Your task to perform on an android device: delete browsing data in the chrome app Image 0: 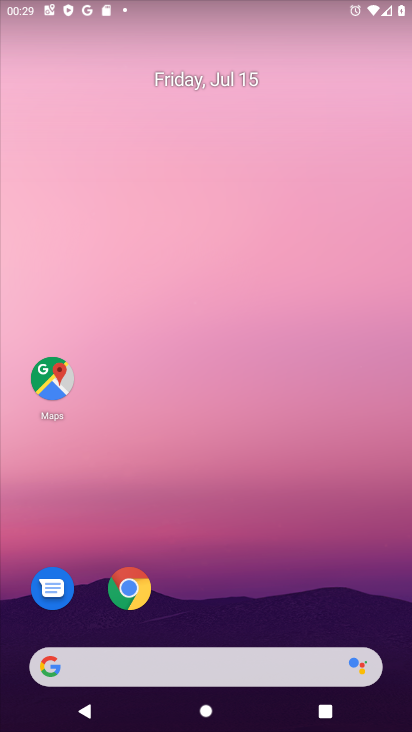
Step 0: press home button
Your task to perform on an android device: delete browsing data in the chrome app Image 1: 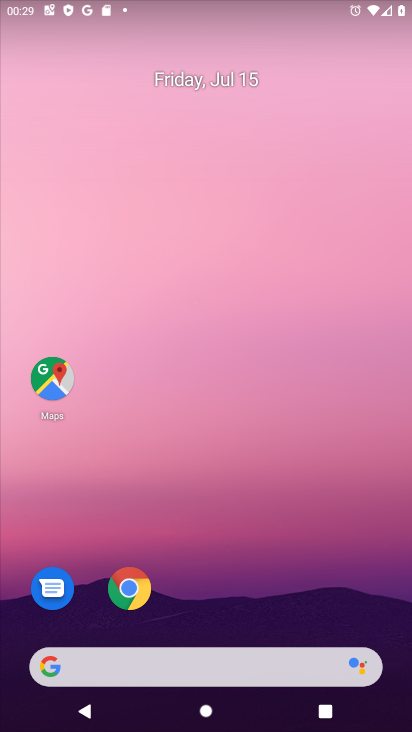
Step 1: click (129, 595)
Your task to perform on an android device: delete browsing data in the chrome app Image 2: 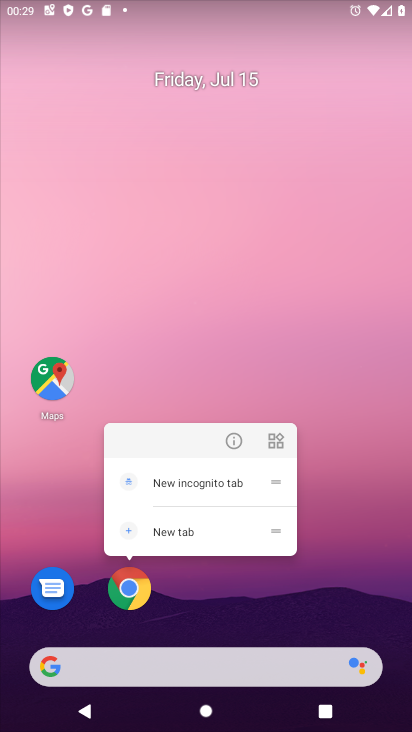
Step 2: click (135, 583)
Your task to perform on an android device: delete browsing data in the chrome app Image 3: 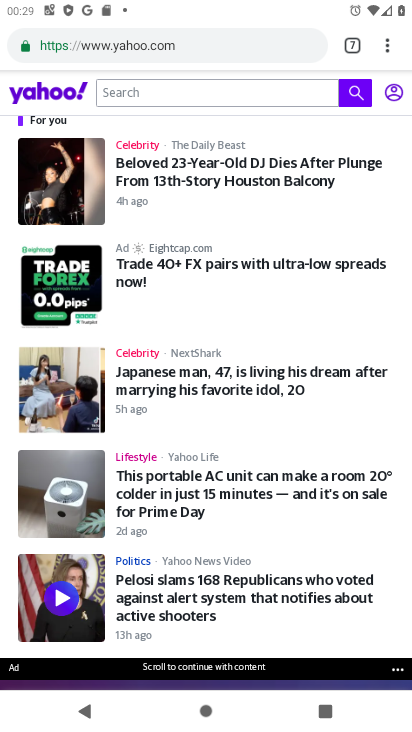
Step 3: drag from (385, 45) to (289, 552)
Your task to perform on an android device: delete browsing data in the chrome app Image 4: 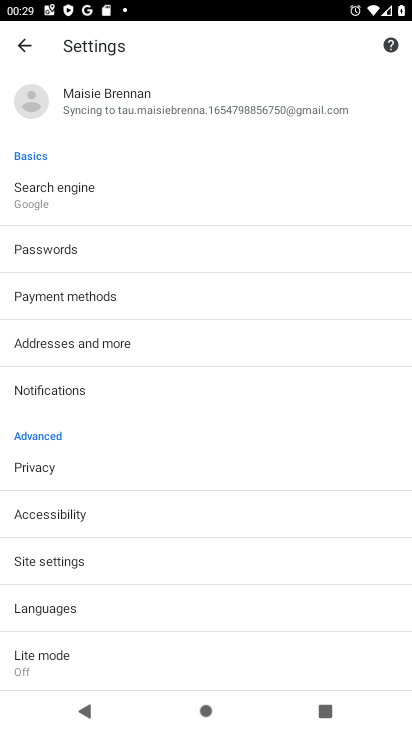
Step 4: click (60, 459)
Your task to perform on an android device: delete browsing data in the chrome app Image 5: 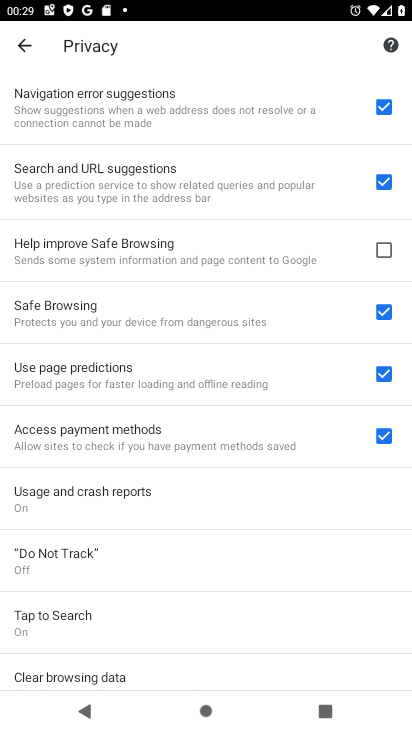
Step 5: drag from (208, 658) to (355, 34)
Your task to perform on an android device: delete browsing data in the chrome app Image 6: 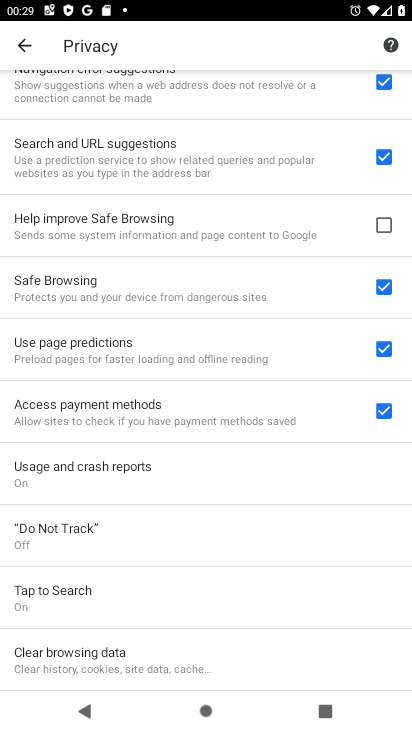
Step 6: click (176, 669)
Your task to perform on an android device: delete browsing data in the chrome app Image 7: 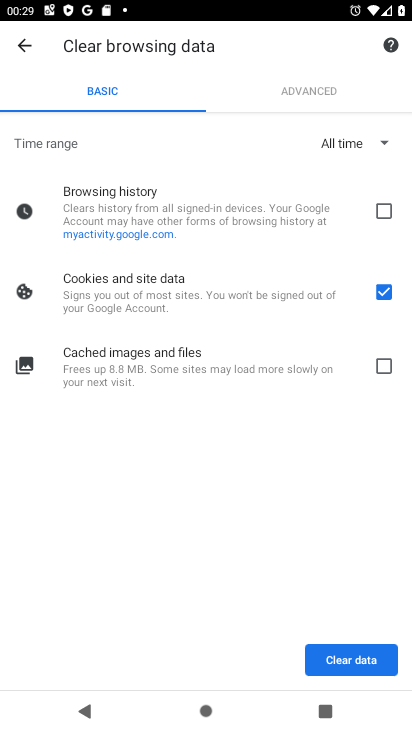
Step 7: click (384, 206)
Your task to perform on an android device: delete browsing data in the chrome app Image 8: 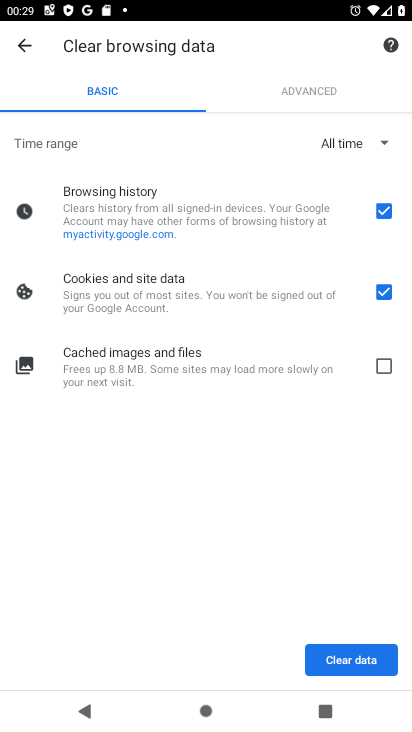
Step 8: click (388, 359)
Your task to perform on an android device: delete browsing data in the chrome app Image 9: 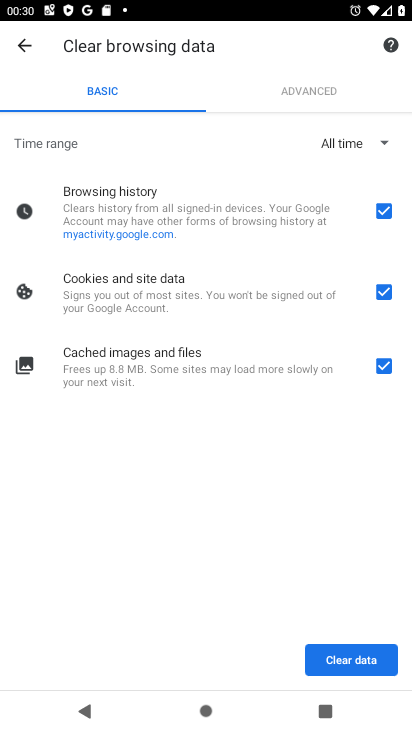
Step 9: click (357, 665)
Your task to perform on an android device: delete browsing data in the chrome app Image 10: 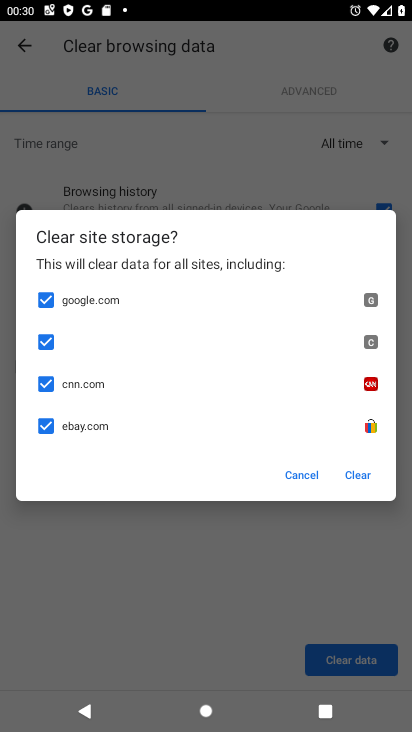
Step 10: click (352, 477)
Your task to perform on an android device: delete browsing data in the chrome app Image 11: 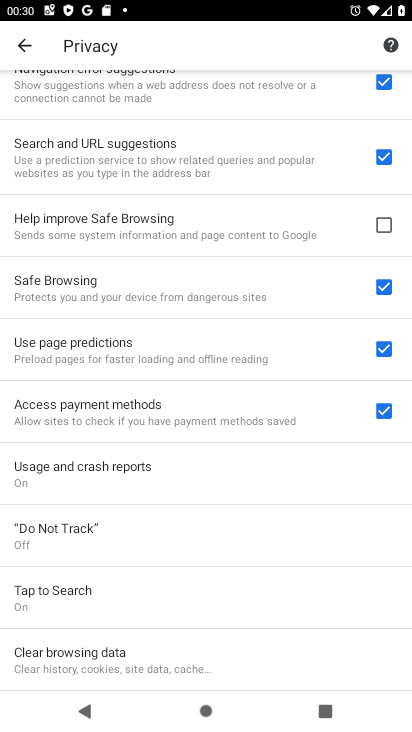
Step 11: task complete